Your task to perform on an android device: turn vacation reply on in the gmail app Image 0: 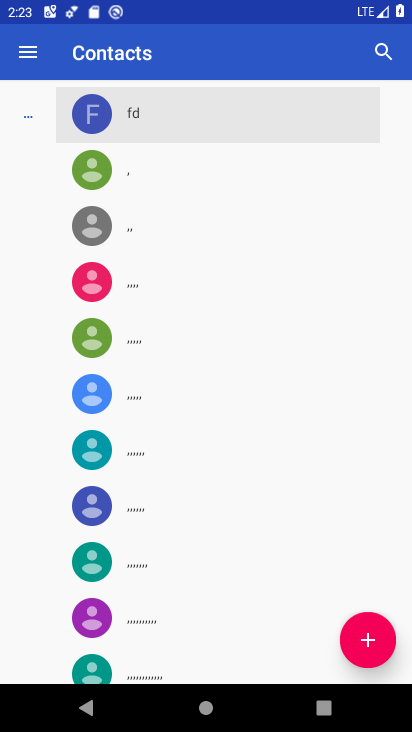
Step 0: press home button
Your task to perform on an android device: turn vacation reply on in the gmail app Image 1: 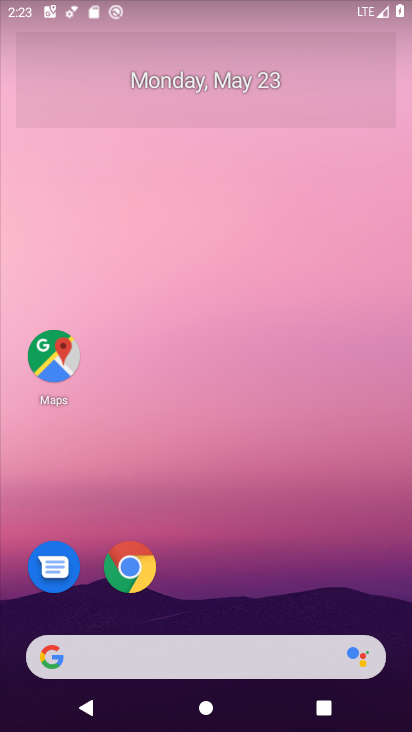
Step 1: drag from (274, 501) to (245, 60)
Your task to perform on an android device: turn vacation reply on in the gmail app Image 2: 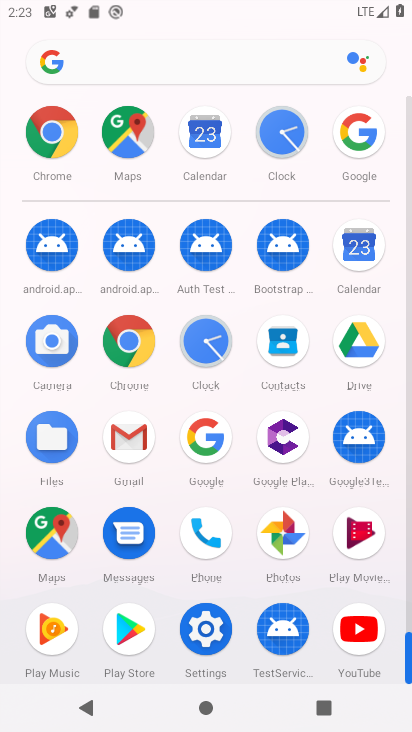
Step 2: click (136, 453)
Your task to perform on an android device: turn vacation reply on in the gmail app Image 3: 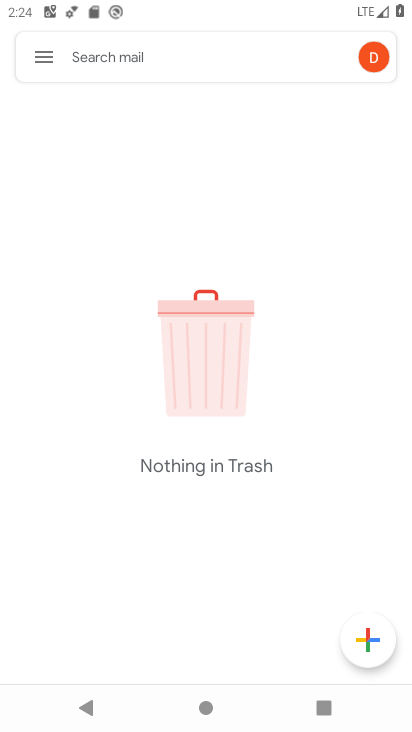
Step 3: click (45, 59)
Your task to perform on an android device: turn vacation reply on in the gmail app Image 4: 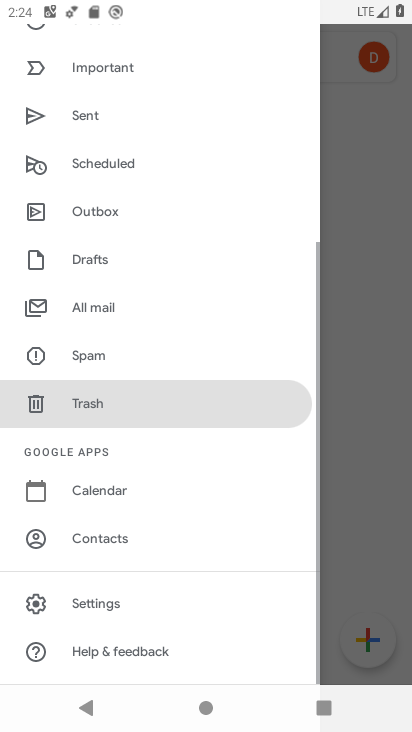
Step 4: click (116, 606)
Your task to perform on an android device: turn vacation reply on in the gmail app Image 5: 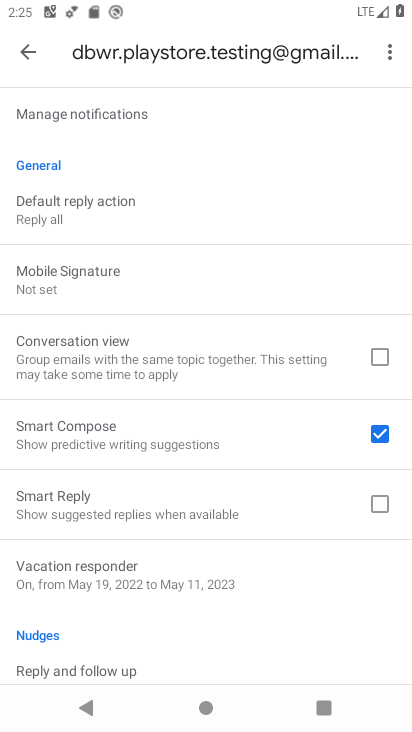
Step 5: click (78, 570)
Your task to perform on an android device: turn vacation reply on in the gmail app Image 6: 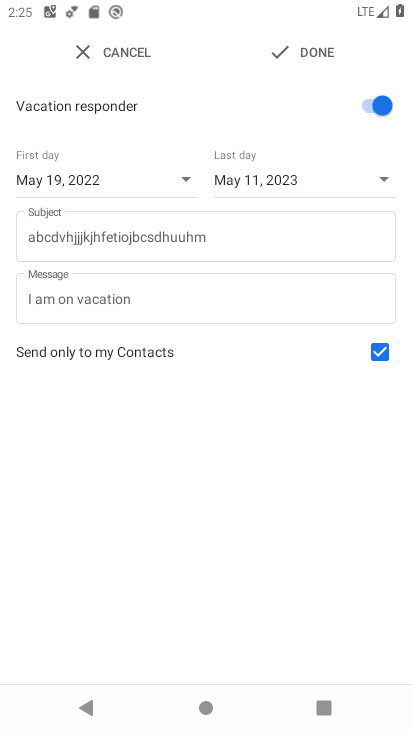
Step 6: click (331, 65)
Your task to perform on an android device: turn vacation reply on in the gmail app Image 7: 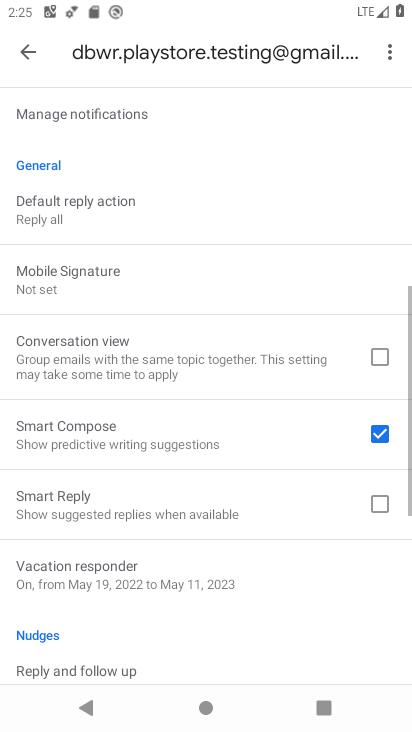
Step 7: task complete